Your task to perform on an android device: Open Android settings Image 0: 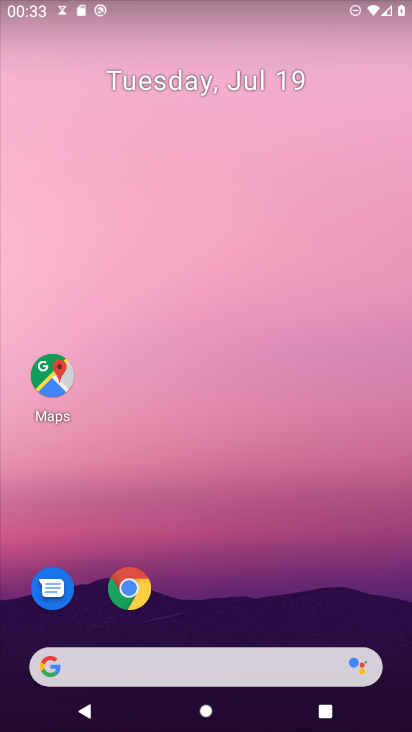
Step 0: press home button
Your task to perform on an android device: Open Android settings Image 1: 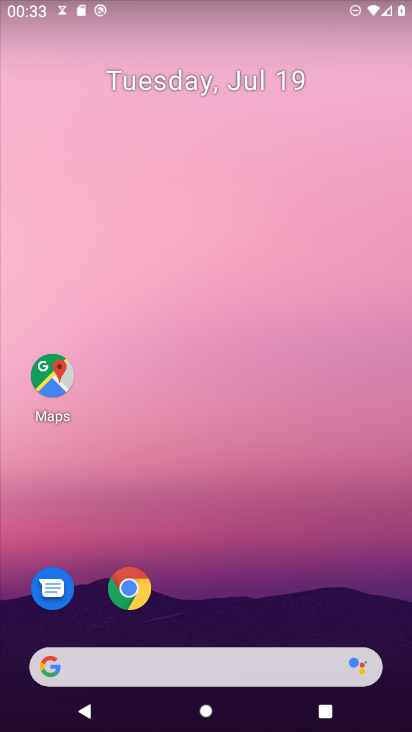
Step 1: drag from (318, 584) to (386, 100)
Your task to perform on an android device: Open Android settings Image 2: 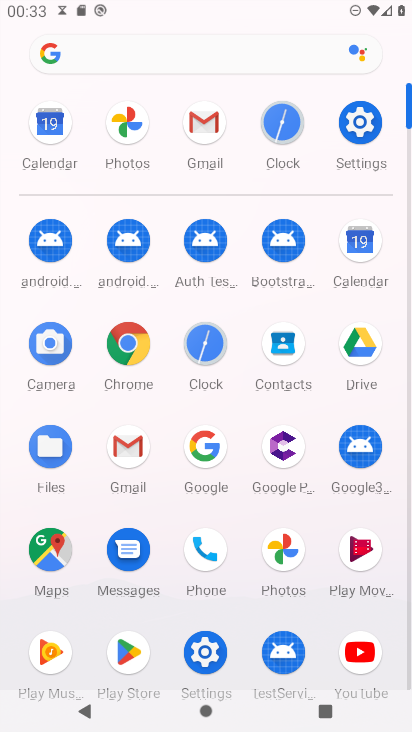
Step 2: click (351, 120)
Your task to perform on an android device: Open Android settings Image 3: 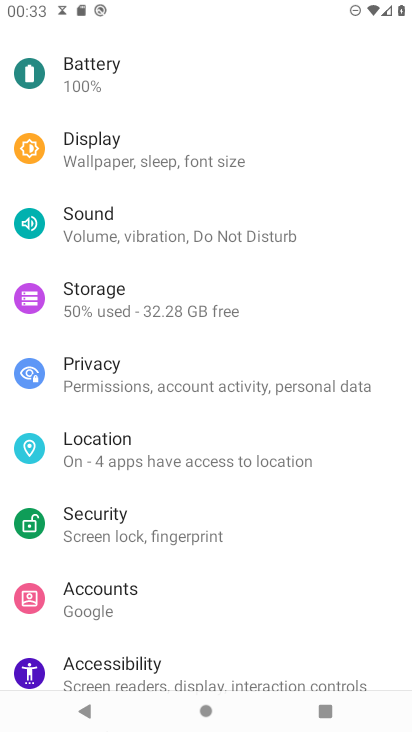
Step 3: task complete